Your task to perform on an android device: turn off airplane mode Image 0: 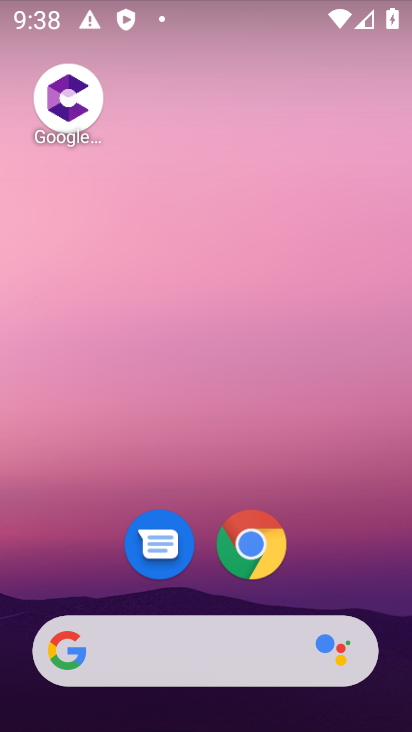
Step 0: drag from (184, 443) to (296, 80)
Your task to perform on an android device: turn off airplane mode Image 1: 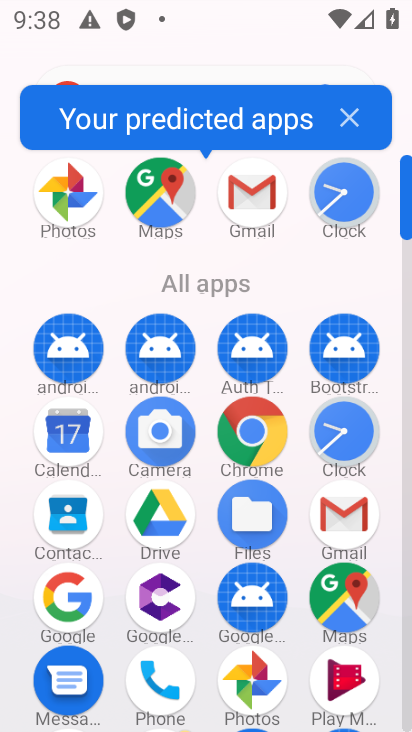
Step 1: task complete